Your task to perform on an android device: Open settings Image 0: 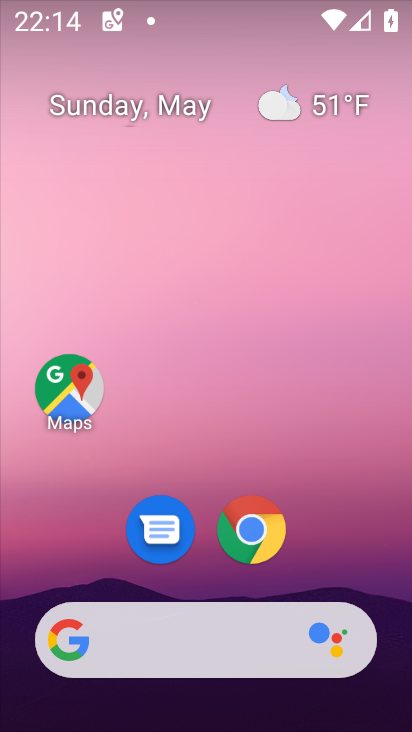
Step 0: click (287, 1)
Your task to perform on an android device: Open settings Image 1: 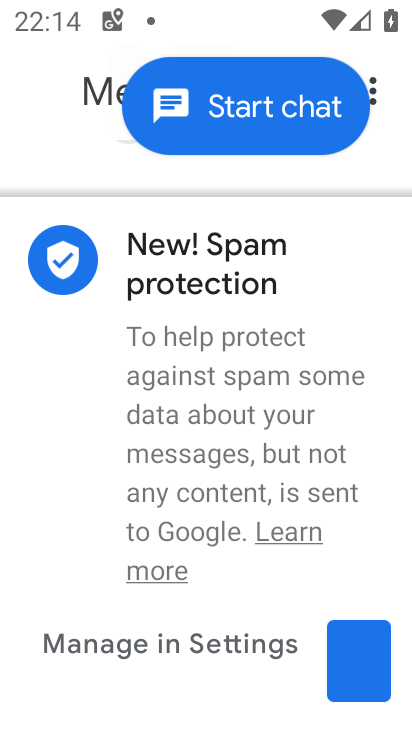
Step 1: press home button
Your task to perform on an android device: Open settings Image 2: 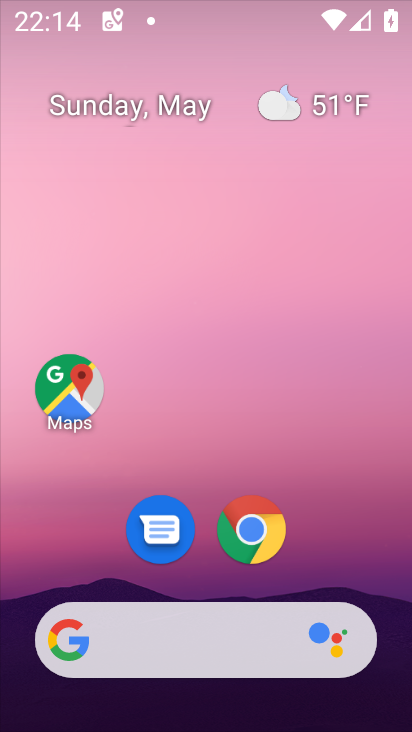
Step 2: drag from (263, 650) to (251, 5)
Your task to perform on an android device: Open settings Image 3: 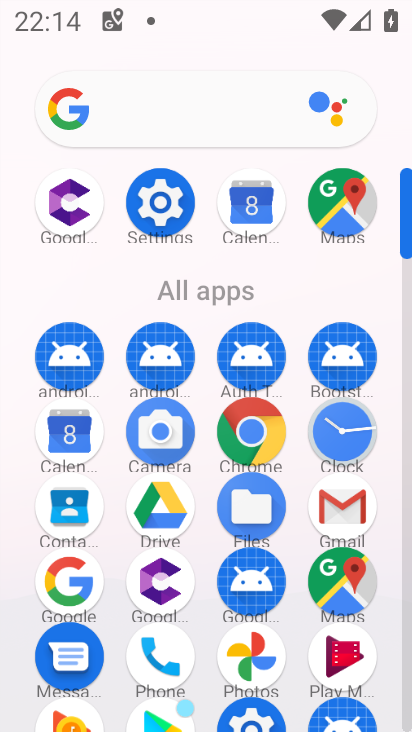
Step 3: click (165, 215)
Your task to perform on an android device: Open settings Image 4: 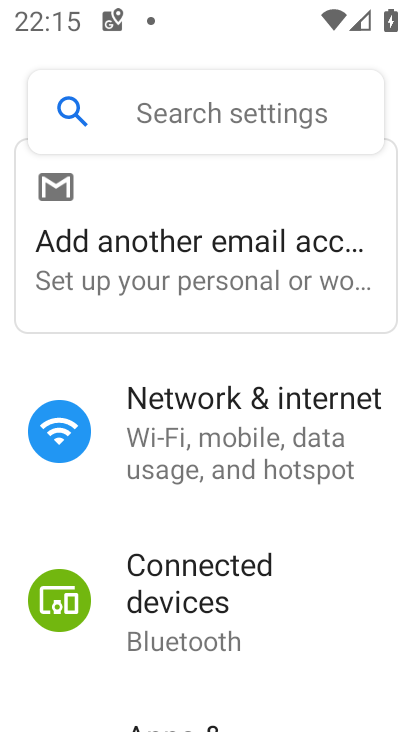
Step 4: task complete